Your task to perform on an android device: read, delete, or share a saved page in the chrome app Image 0: 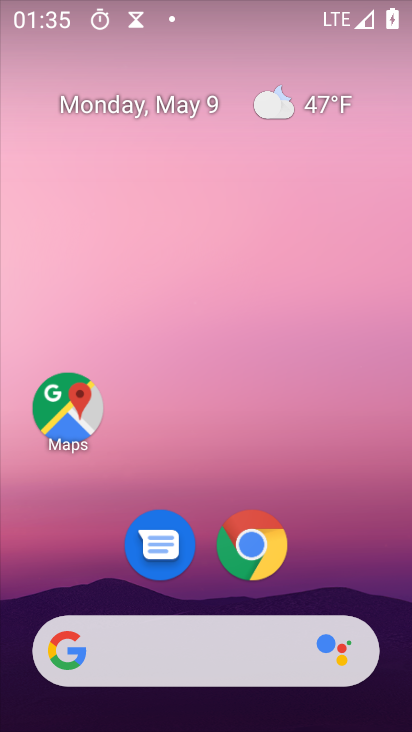
Step 0: click (280, 550)
Your task to perform on an android device: read, delete, or share a saved page in the chrome app Image 1: 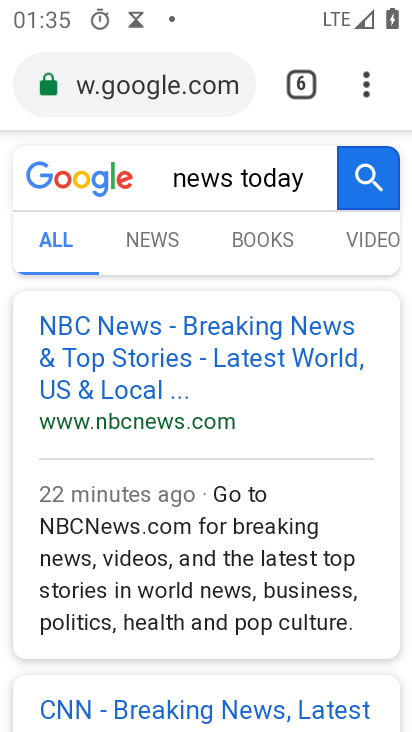
Step 1: task complete